Your task to perform on an android device: Go to notification settings Image 0: 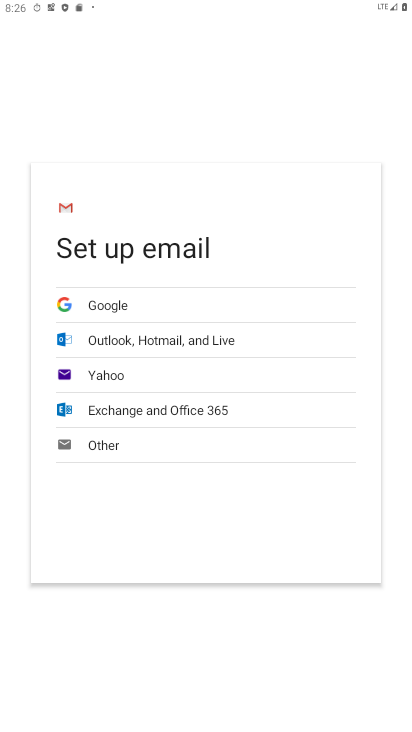
Step 0: press home button
Your task to perform on an android device: Go to notification settings Image 1: 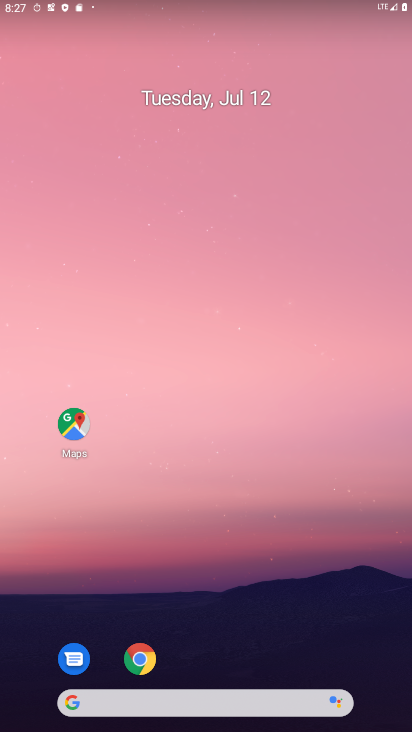
Step 1: drag from (385, 665) to (145, 3)
Your task to perform on an android device: Go to notification settings Image 2: 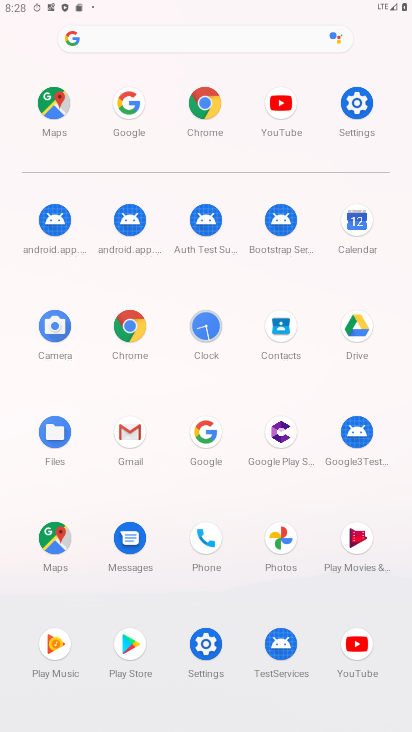
Step 2: click (210, 650)
Your task to perform on an android device: Go to notification settings Image 3: 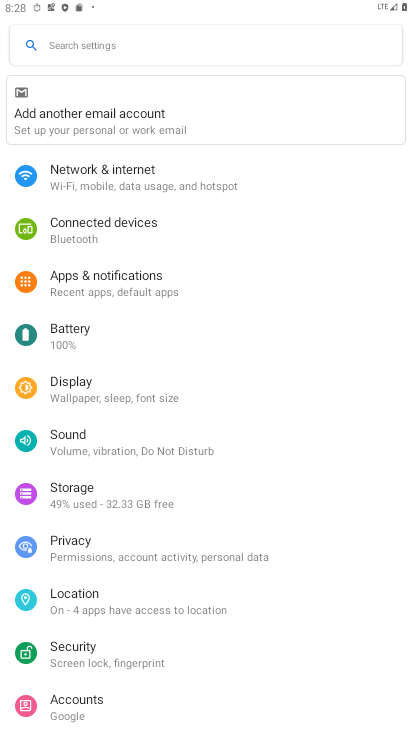
Step 3: click (101, 275)
Your task to perform on an android device: Go to notification settings Image 4: 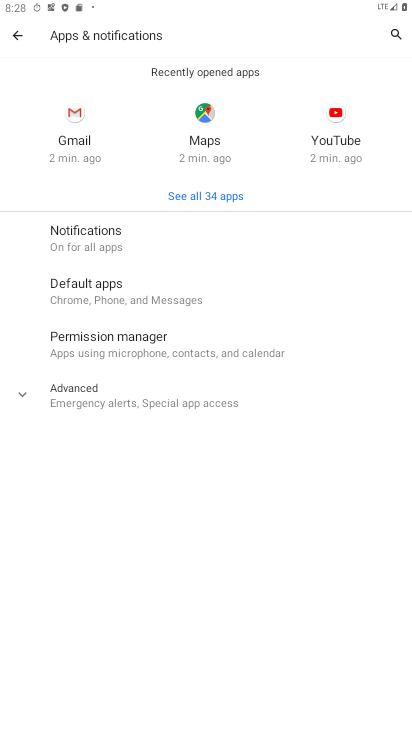
Step 4: click (141, 252)
Your task to perform on an android device: Go to notification settings Image 5: 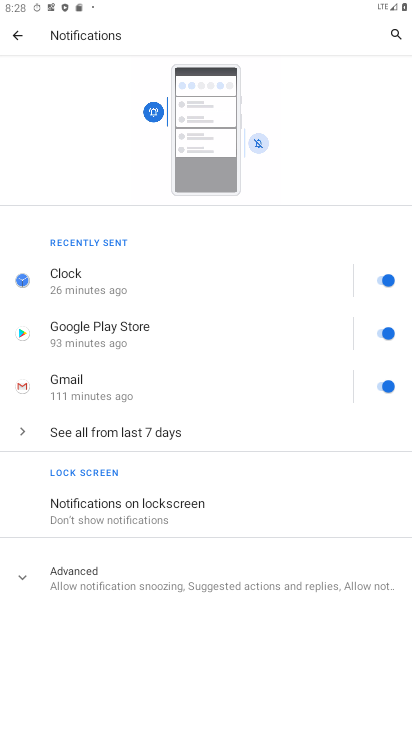
Step 5: task complete